Your task to perform on an android device: Go to notification settings Image 0: 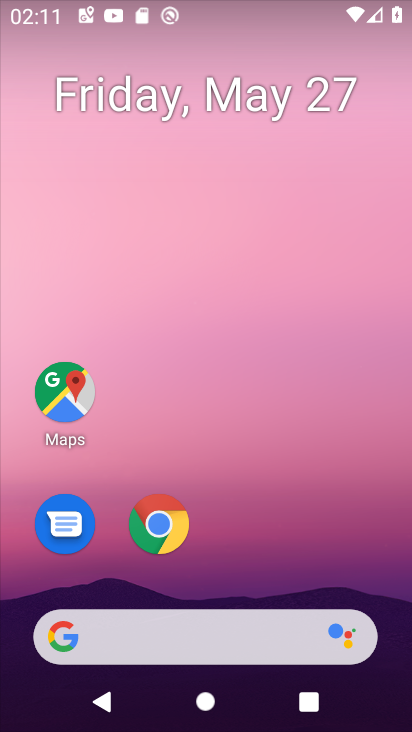
Step 0: drag from (244, 543) to (280, 10)
Your task to perform on an android device: Go to notification settings Image 1: 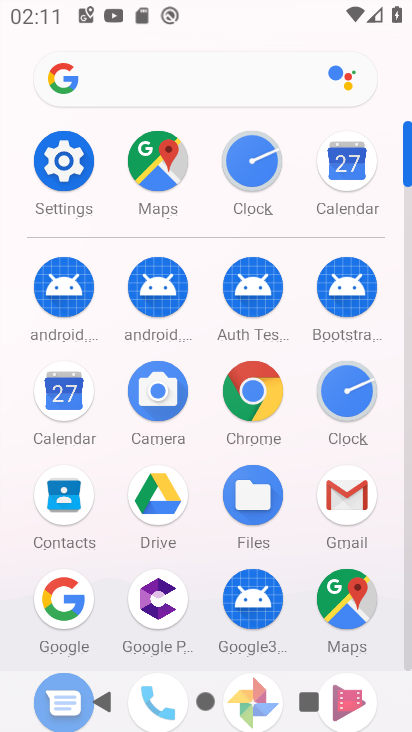
Step 1: click (66, 157)
Your task to perform on an android device: Go to notification settings Image 2: 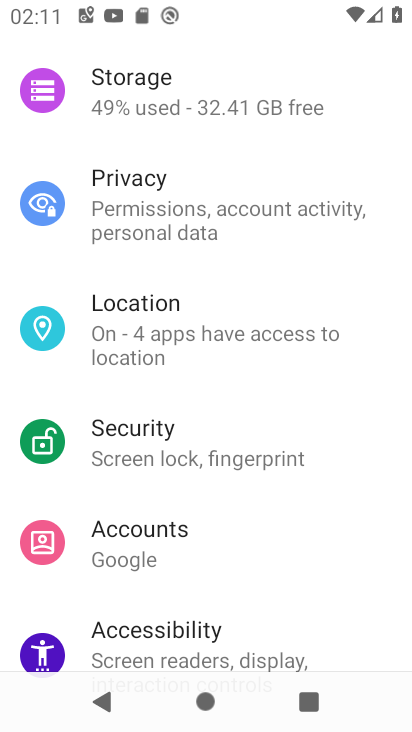
Step 2: drag from (261, 151) to (198, 605)
Your task to perform on an android device: Go to notification settings Image 3: 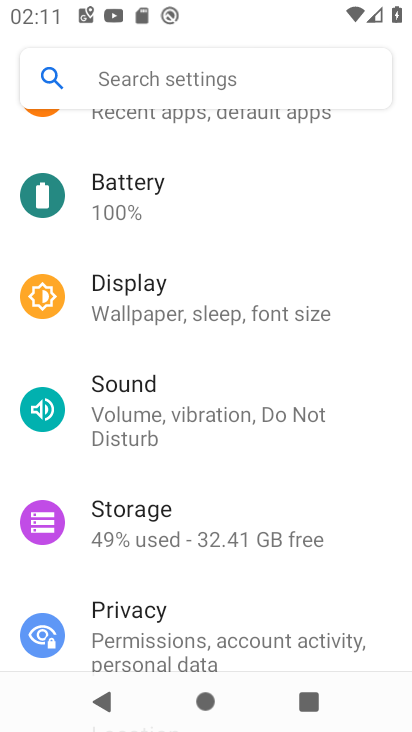
Step 3: drag from (251, 221) to (267, 564)
Your task to perform on an android device: Go to notification settings Image 4: 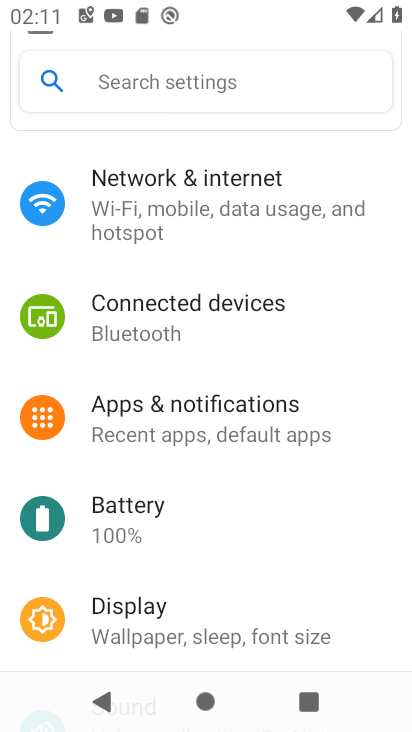
Step 4: click (264, 423)
Your task to perform on an android device: Go to notification settings Image 5: 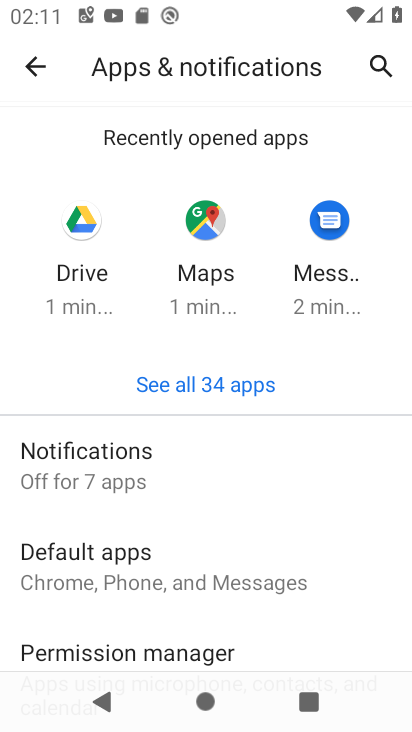
Step 5: click (229, 473)
Your task to perform on an android device: Go to notification settings Image 6: 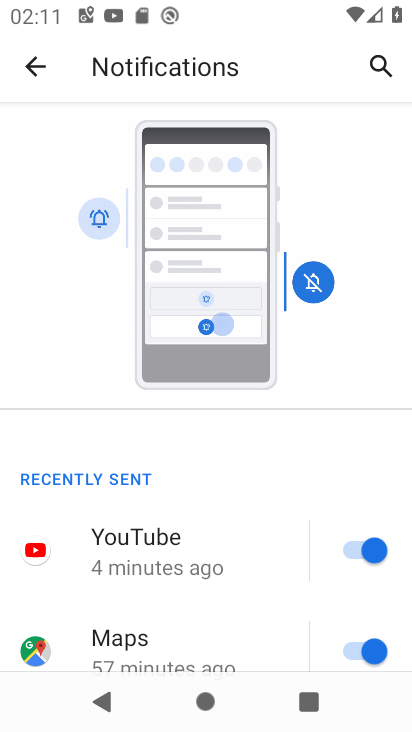
Step 6: task complete